Your task to perform on an android device: Open settings Image 0: 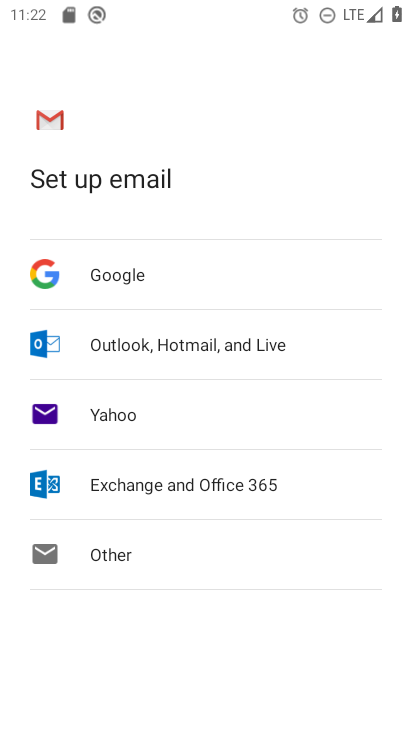
Step 0: press home button
Your task to perform on an android device: Open settings Image 1: 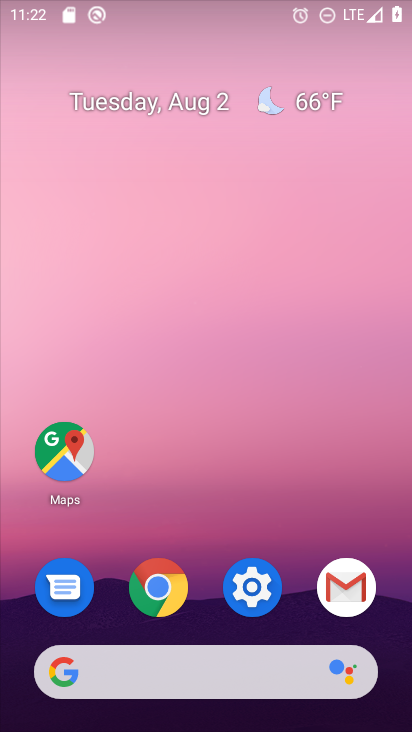
Step 1: click (246, 561)
Your task to perform on an android device: Open settings Image 2: 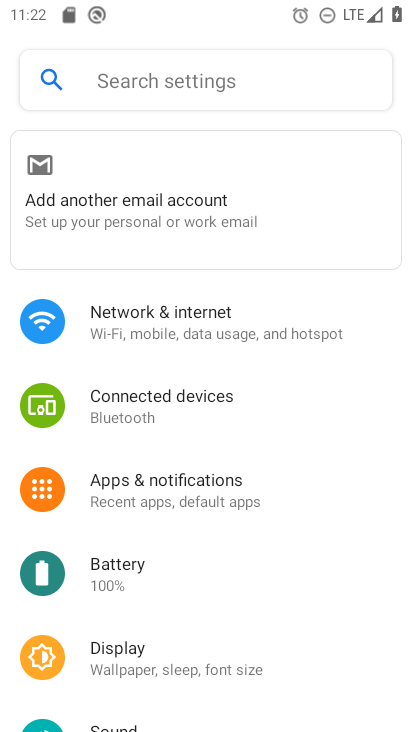
Step 2: task complete